Your task to perform on an android device: turn off location history Image 0: 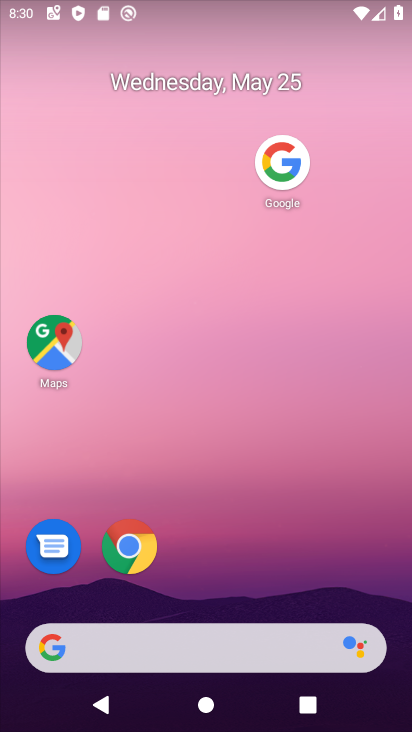
Step 0: press home button
Your task to perform on an android device: turn off location history Image 1: 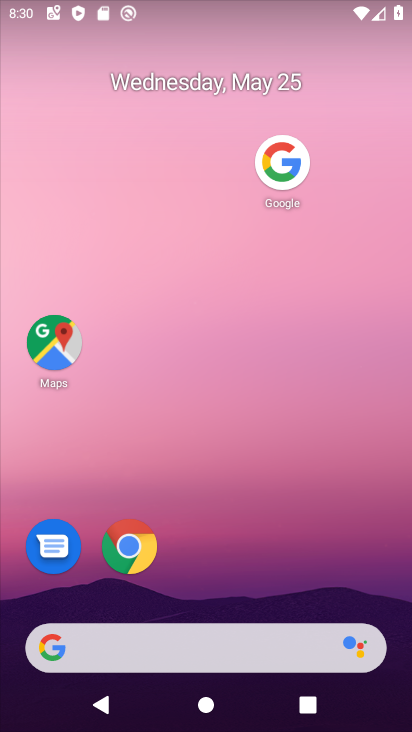
Step 1: click (53, 354)
Your task to perform on an android device: turn off location history Image 2: 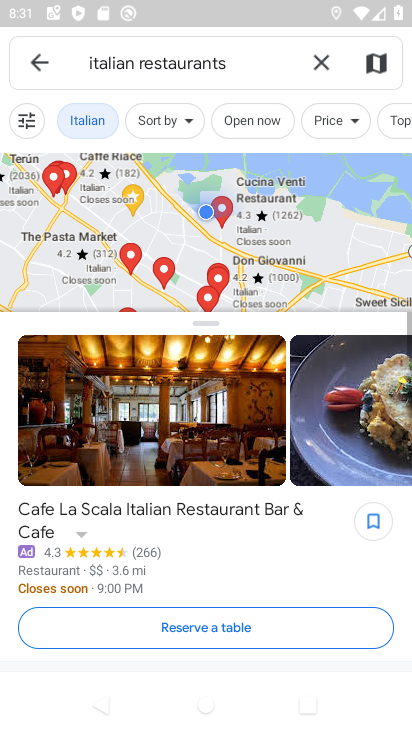
Step 2: click (40, 63)
Your task to perform on an android device: turn off location history Image 3: 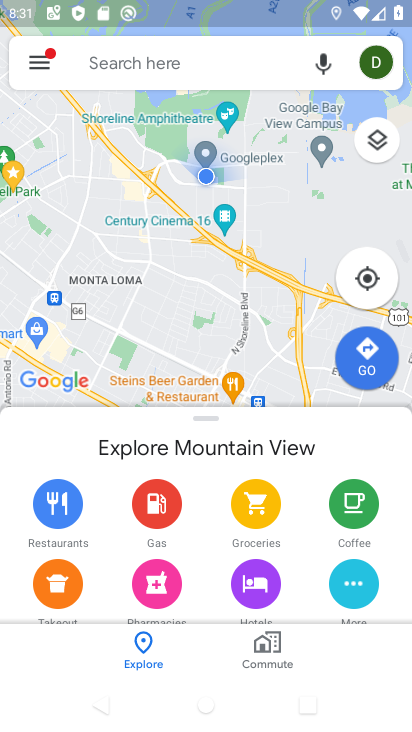
Step 3: click (37, 66)
Your task to perform on an android device: turn off location history Image 4: 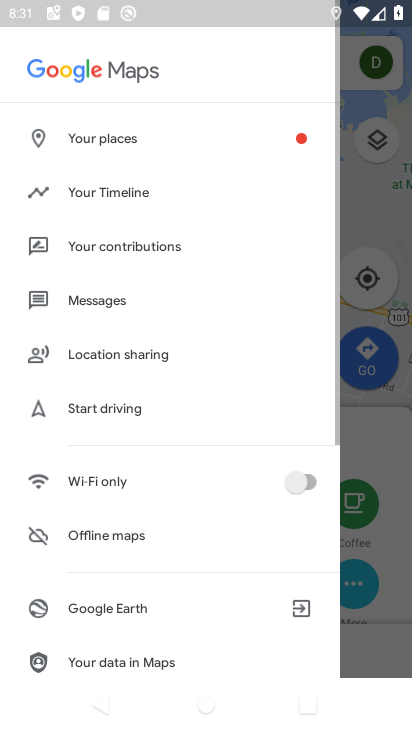
Step 4: click (106, 192)
Your task to perform on an android device: turn off location history Image 5: 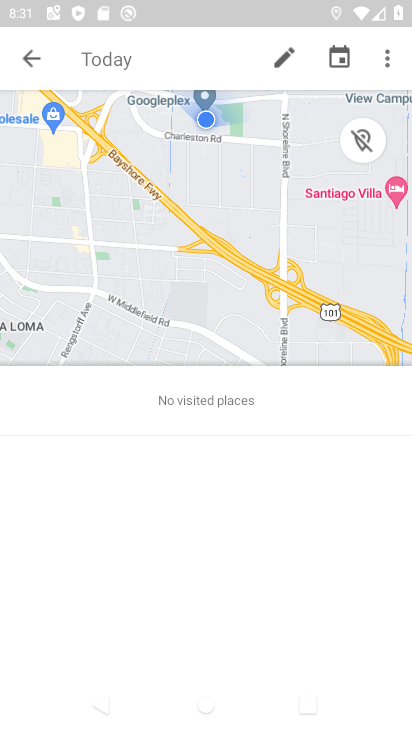
Step 5: click (388, 62)
Your task to perform on an android device: turn off location history Image 6: 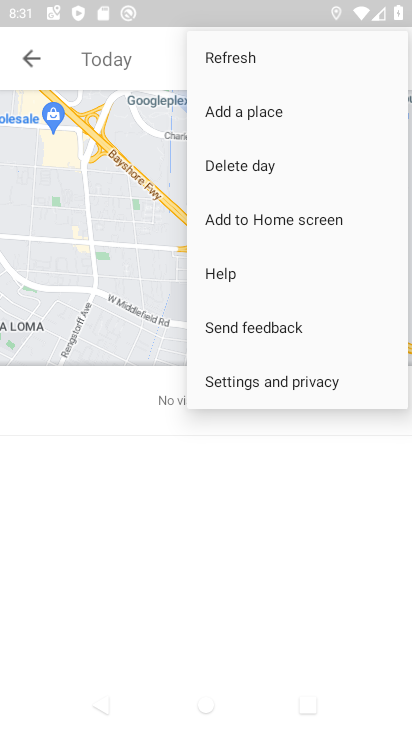
Step 6: click (253, 382)
Your task to perform on an android device: turn off location history Image 7: 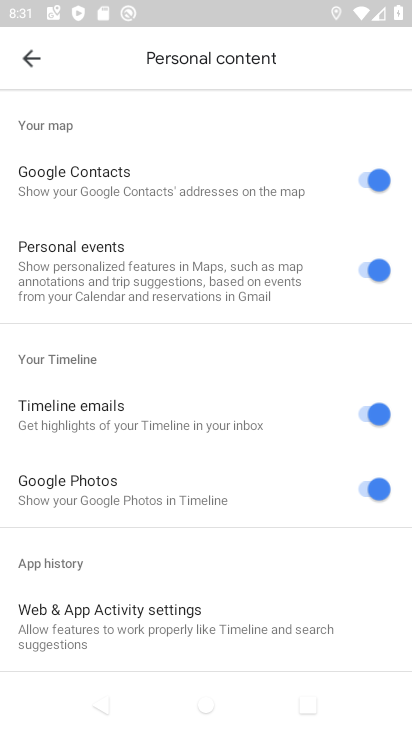
Step 7: drag from (185, 581) to (323, 147)
Your task to perform on an android device: turn off location history Image 8: 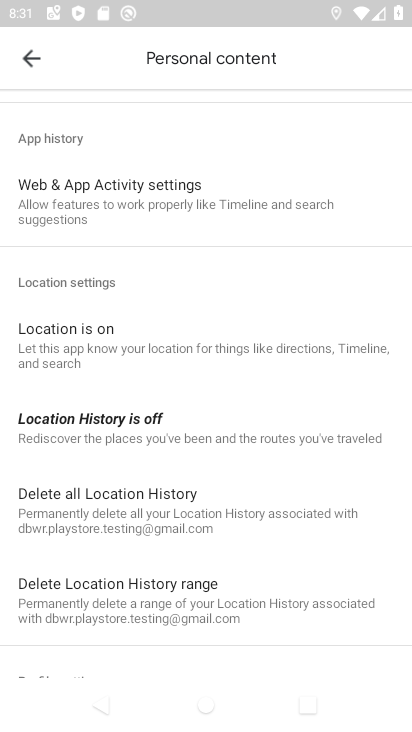
Step 8: drag from (202, 572) to (327, 140)
Your task to perform on an android device: turn off location history Image 9: 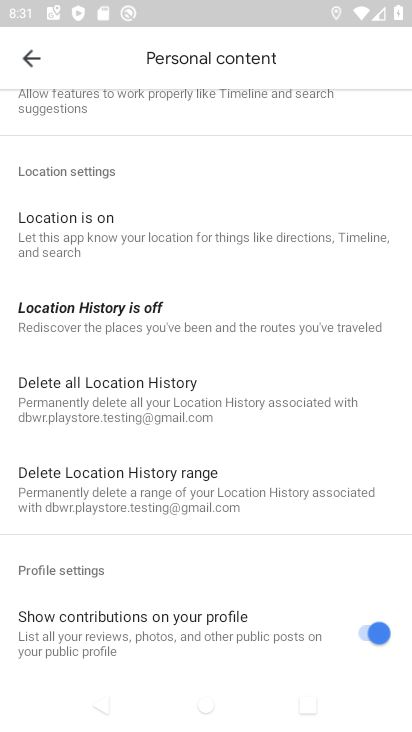
Step 9: click (130, 316)
Your task to perform on an android device: turn off location history Image 10: 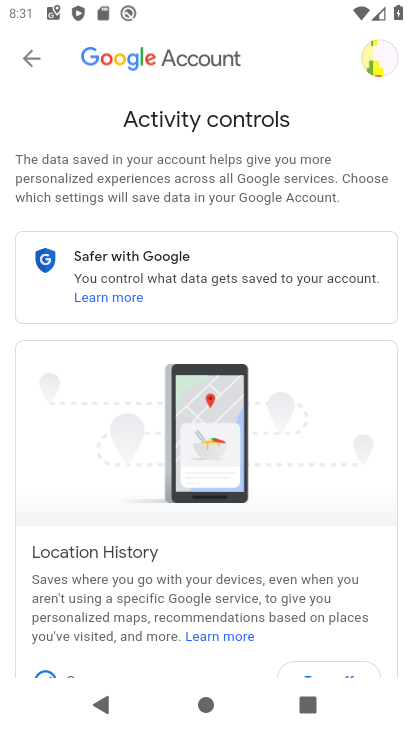
Step 10: drag from (243, 571) to (353, 216)
Your task to perform on an android device: turn off location history Image 11: 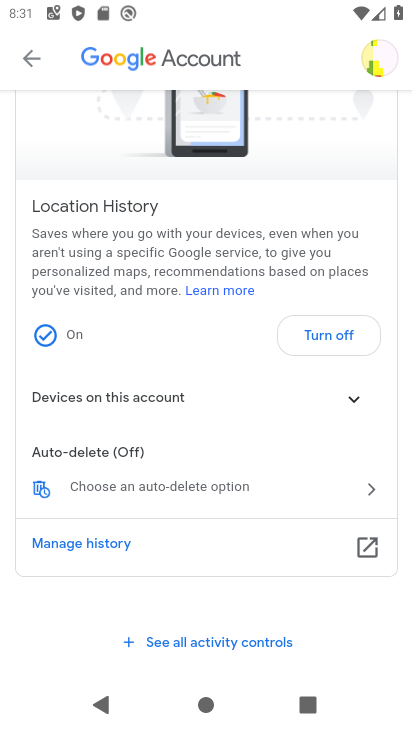
Step 11: click (340, 328)
Your task to perform on an android device: turn off location history Image 12: 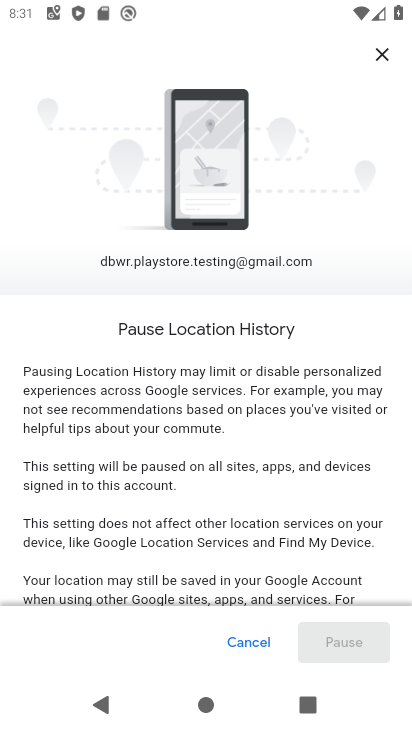
Step 12: drag from (229, 509) to (315, 93)
Your task to perform on an android device: turn off location history Image 13: 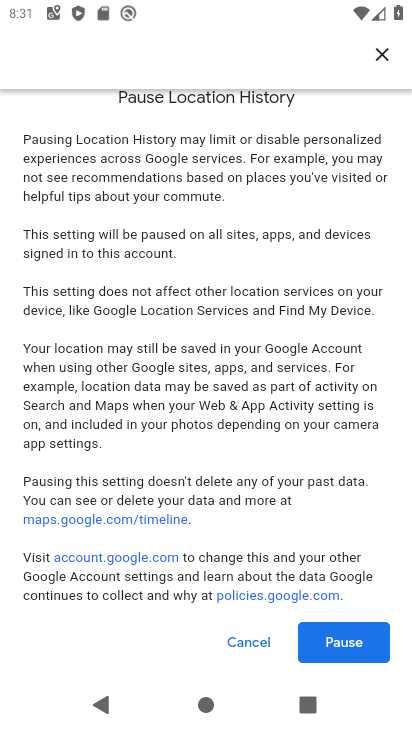
Step 13: click (347, 642)
Your task to perform on an android device: turn off location history Image 14: 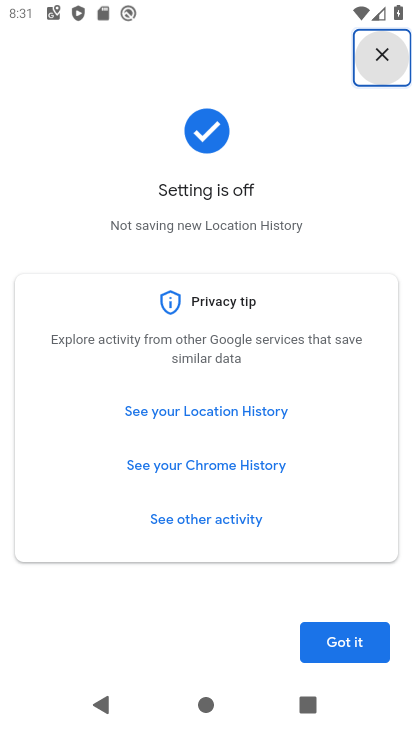
Step 14: click (348, 642)
Your task to perform on an android device: turn off location history Image 15: 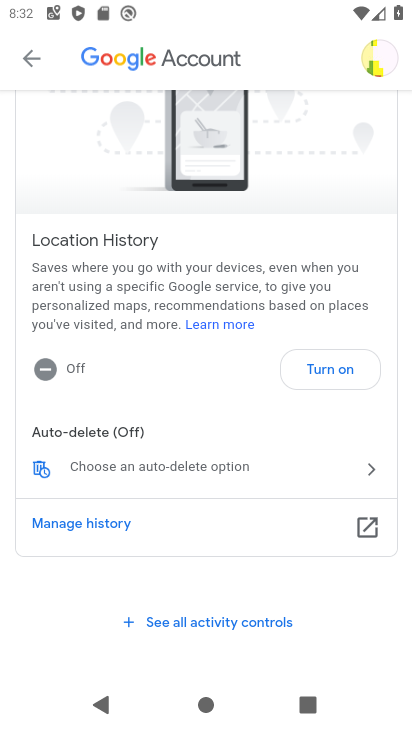
Step 15: task complete